Your task to perform on an android device: Open Amazon Image 0: 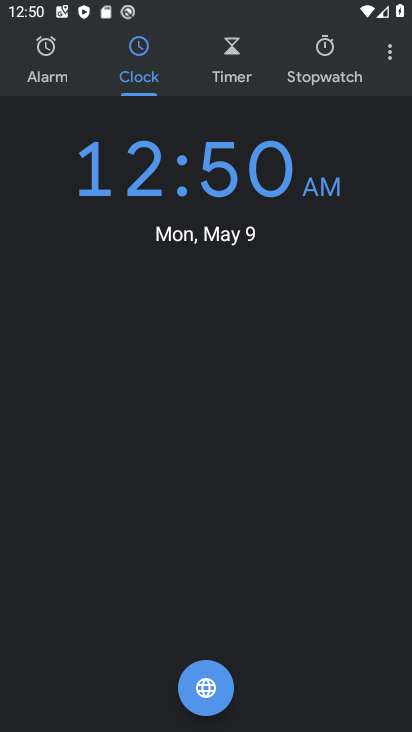
Step 0: press back button
Your task to perform on an android device: Open Amazon Image 1: 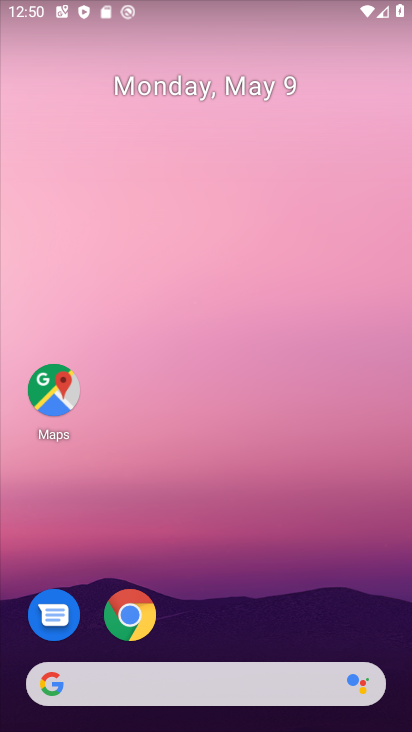
Step 1: click (130, 611)
Your task to perform on an android device: Open Amazon Image 2: 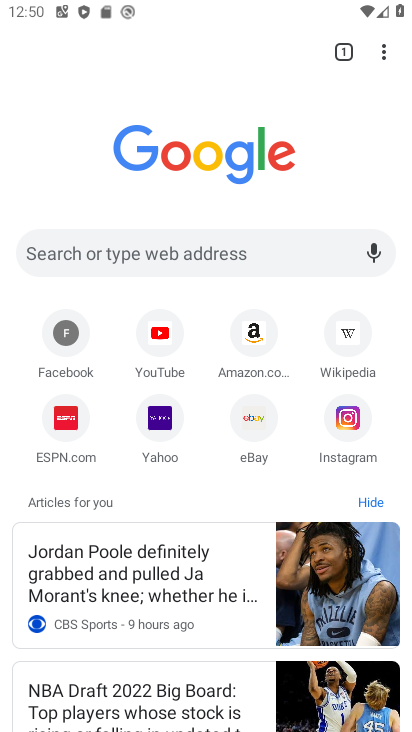
Step 2: click (255, 331)
Your task to perform on an android device: Open Amazon Image 3: 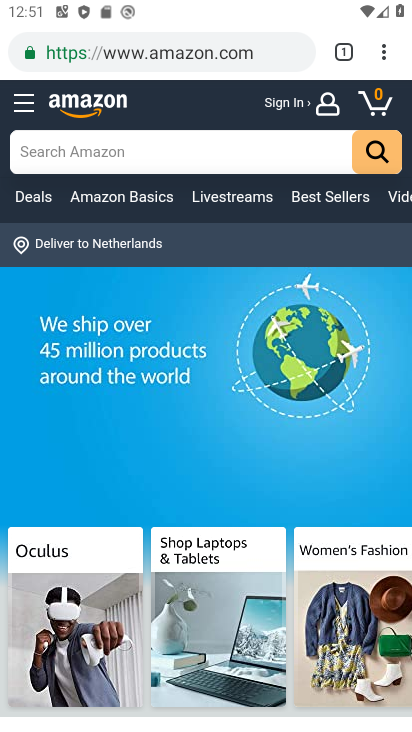
Step 3: task complete